Your task to perform on an android device: Search for sushi restaurants on Maps Image 0: 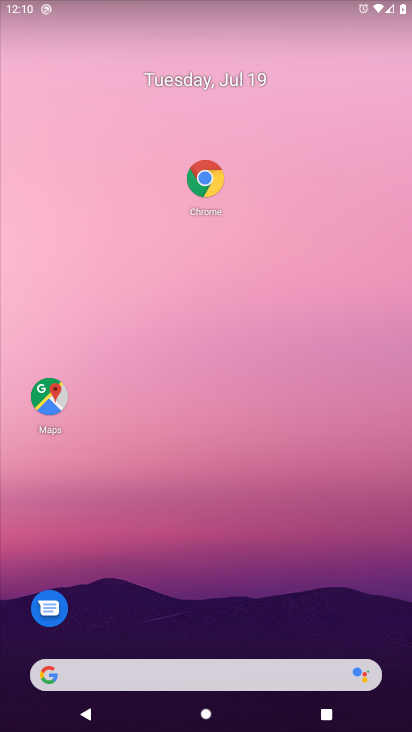
Step 0: click (46, 380)
Your task to perform on an android device: Search for sushi restaurants on Maps Image 1: 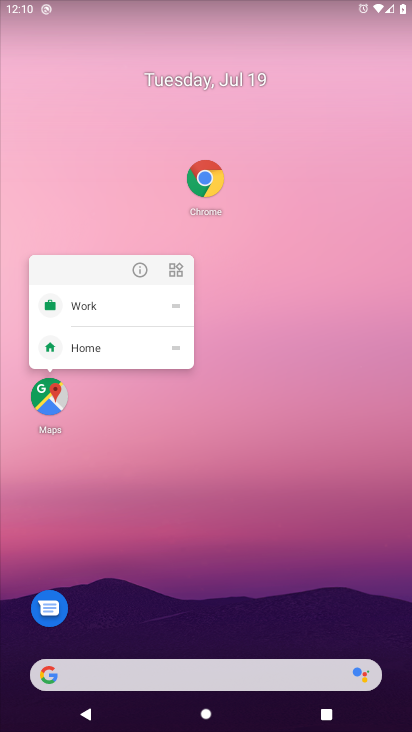
Step 1: click (52, 401)
Your task to perform on an android device: Search for sushi restaurants on Maps Image 2: 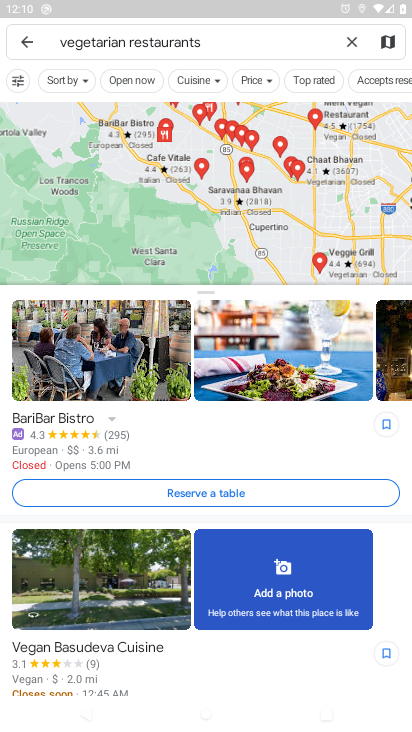
Step 2: click (360, 41)
Your task to perform on an android device: Search for sushi restaurants on Maps Image 3: 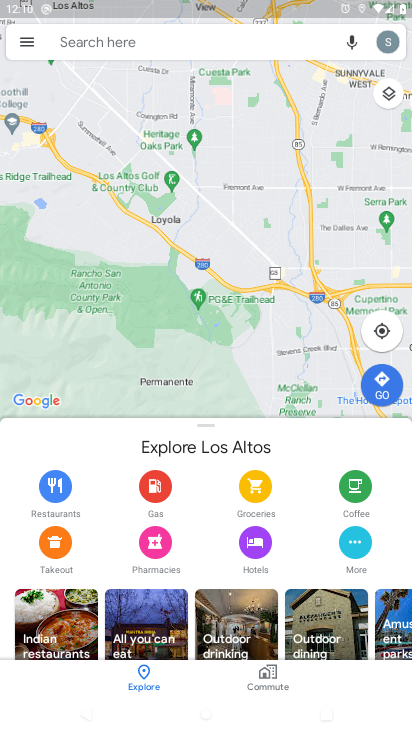
Step 3: click (121, 39)
Your task to perform on an android device: Search for sushi restaurants on Maps Image 4: 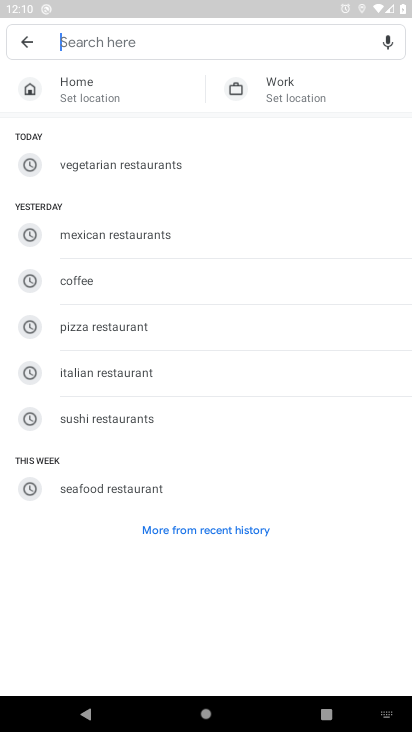
Step 4: type " sushi restaurants "
Your task to perform on an android device: Search for sushi restaurants on Maps Image 5: 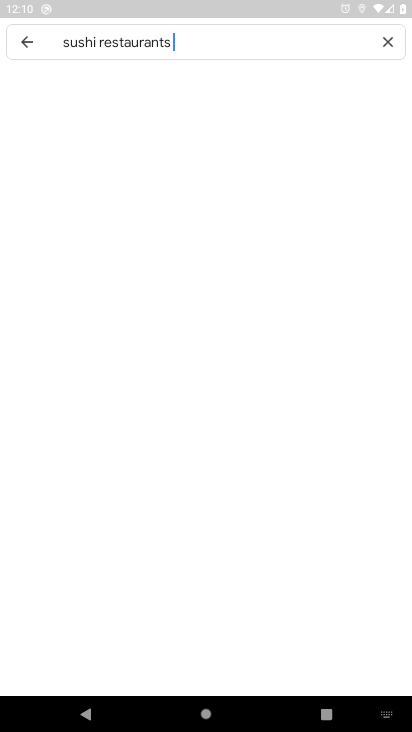
Step 5: type ""
Your task to perform on an android device: Search for sushi restaurants on Maps Image 6: 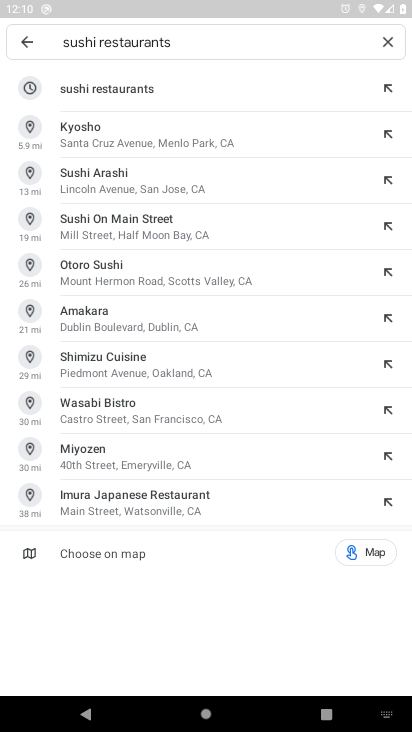
Step 6: click (135, 93)
Your task to perform on an android device: Search for sushi restaurants on Maps Image 7: 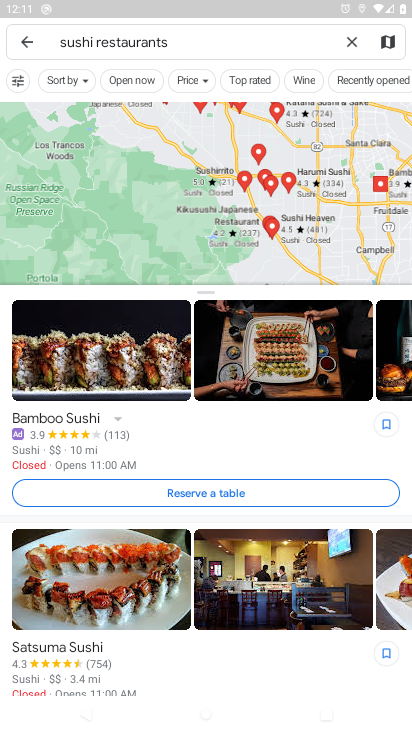
Step 7: task complete